Your task to perform on an android device: Search for pizza restaurants on Maps Image 0: 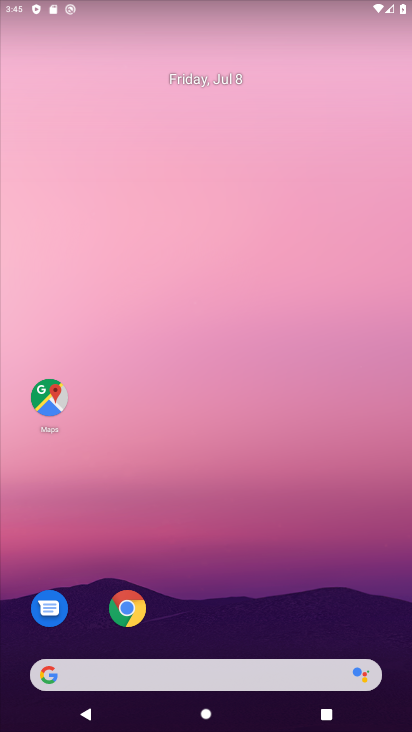
Step 0: drag from (248, 598) to (167, 121)
Your task to perform on an android device: Search for pizza restaurants on Maps Image 1: 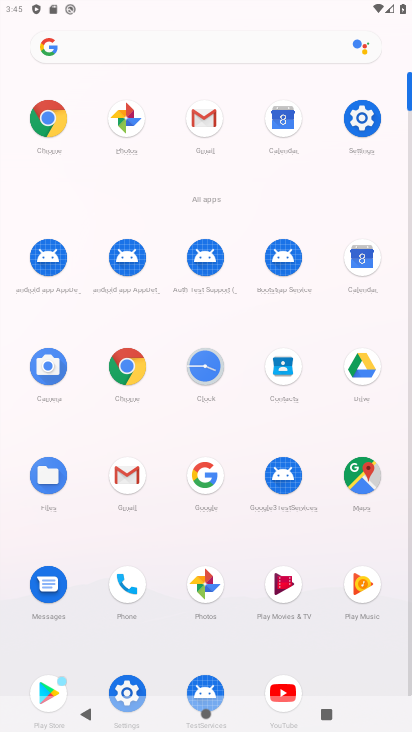
Step 1: click (370, 479)
Your task to perform on an android device: Search for pizza restaurants on Maps Image 2: 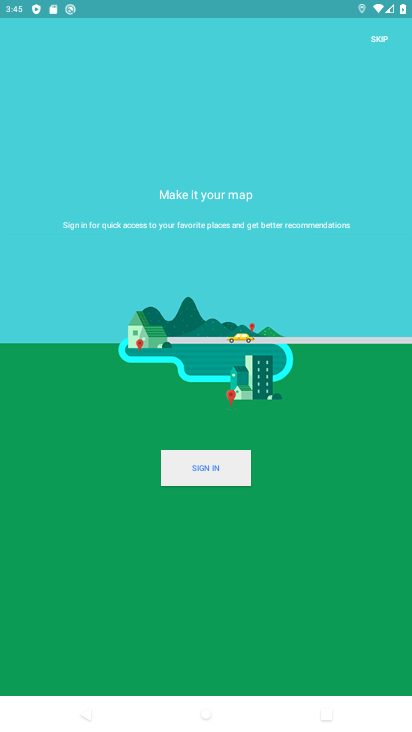
Step 2: task complete